Your task to perform on an android device: see tabs open on other devices in the chrome app Image 0: 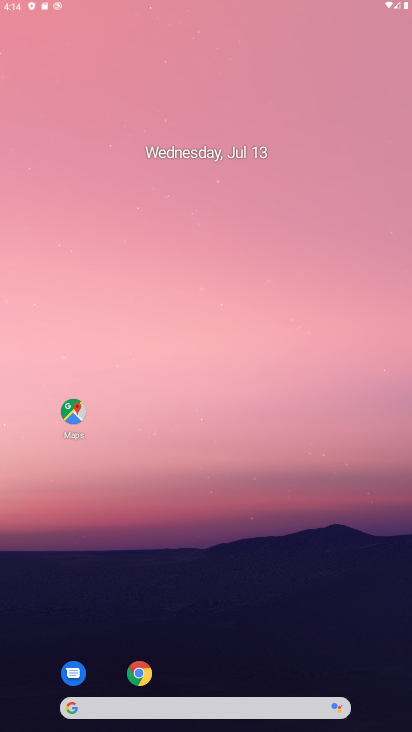
Step 0: drag from (275, 617) to (243, 128)
Your task to perform on an android device: see tabs open on other devices in the chrome app Image 1: 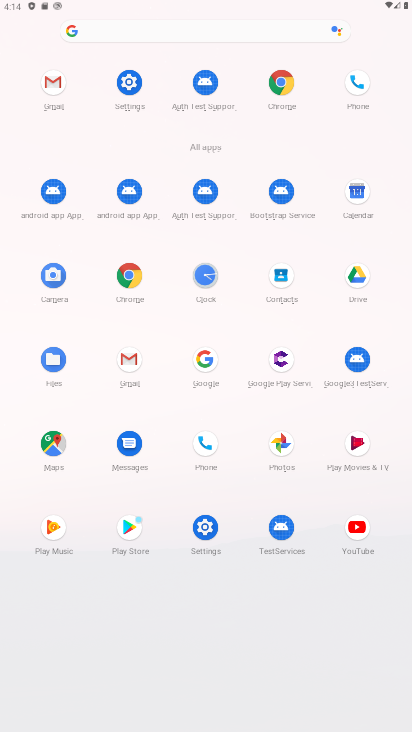
Step 1: click (286, 85)
Your task to perform on an android device: see tabs open on other devices in the chrome app Image 2: 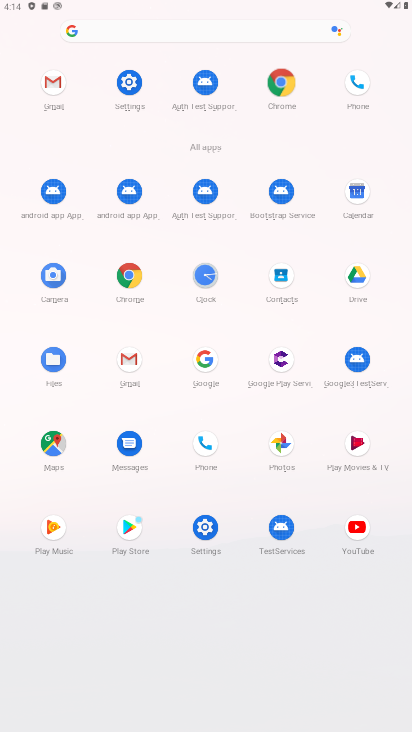
Step 2: click (286, 85)
Your task to perform on an android device: see tabs open on other devices in the chrome app Image 3: 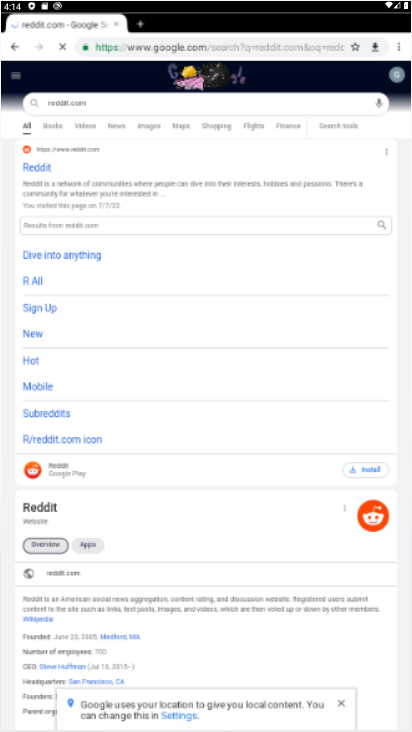
Step 3: click (286, 85)
Your task to perform on an android device: see tabs open on other devices in the chrome app Image 4: 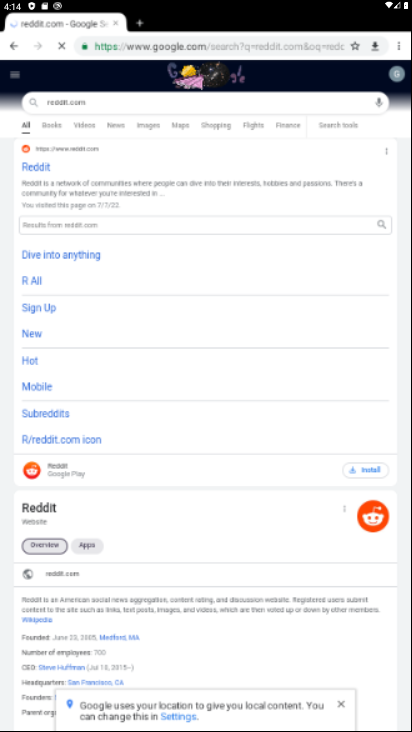
Step 4: click (286, 83)
Your task to perform on an android device: see tabs open on other devices in the chrome app Image 5: 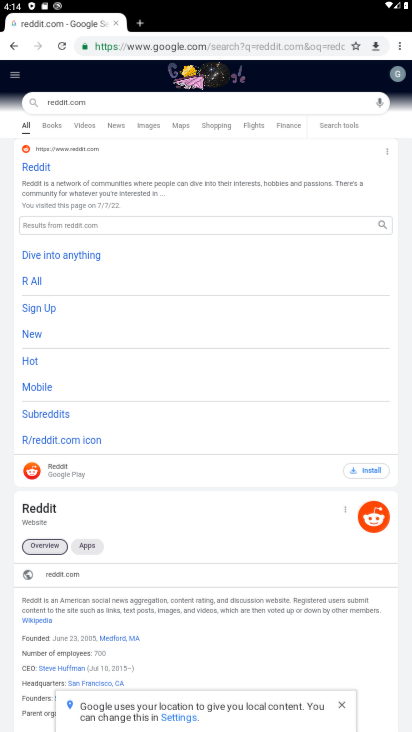
Step 5: drag from (405, 40) to (310, 111)
Your task to perform on an android device: see tabs open on other devices in the chrome app Image 6: 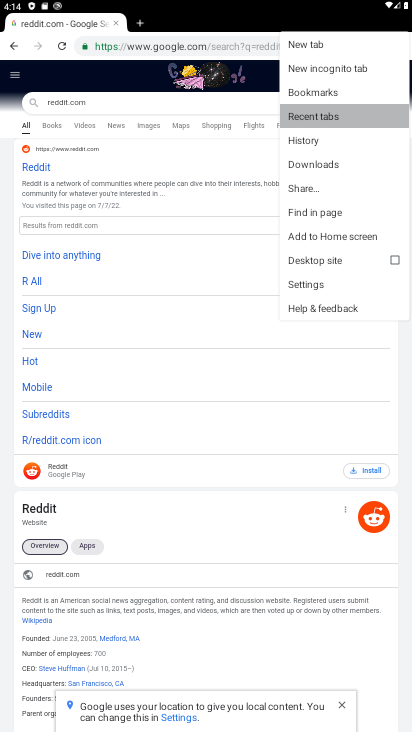
Step 6: click (310, 111)
Your task to perform on an android device: see tabs open on other devices in the chrome app Image 7: 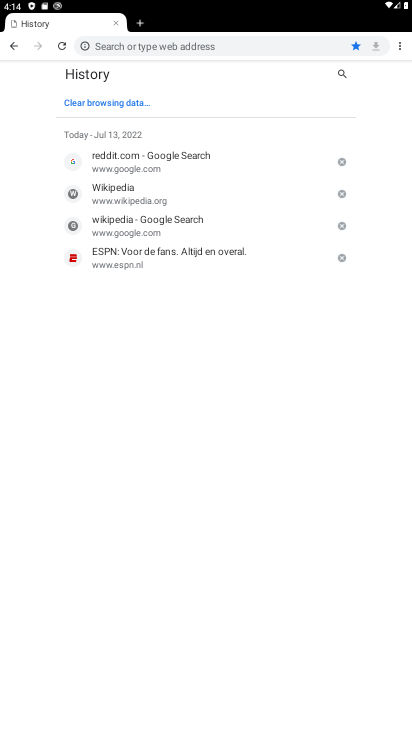
Step 7: task complete